Your task to perform on an android device: empty trash in google photos Image 0: 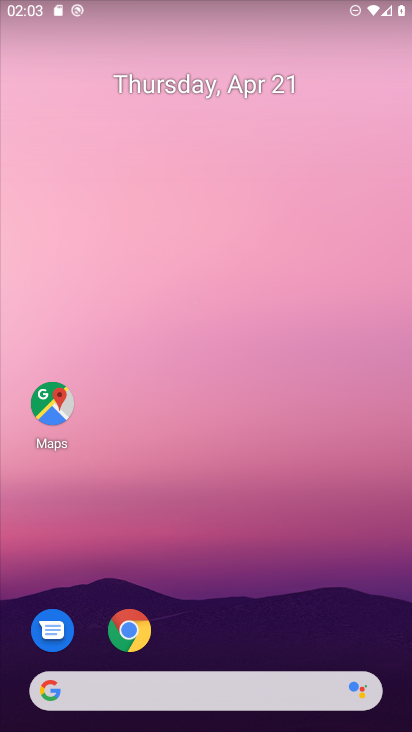
Step 0: drag from (251, 645) to (50, 366)
Your task to perform on an android device: empty trash in google photos Image 1: 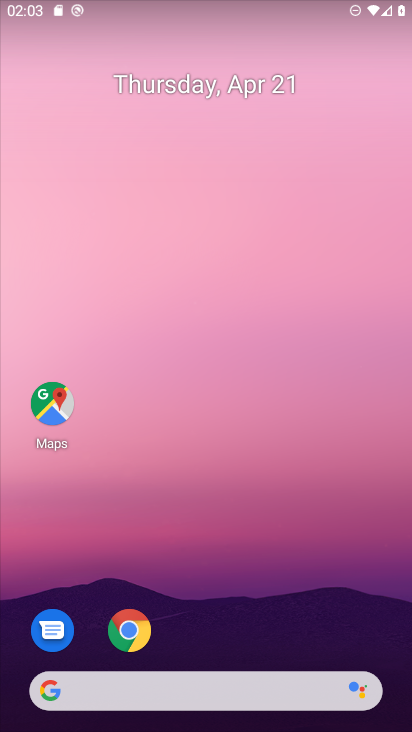
Step 1: drag from (259, 629) to (259, 120)
Your task to perform on an android device: empty trash in google photos Image 2: 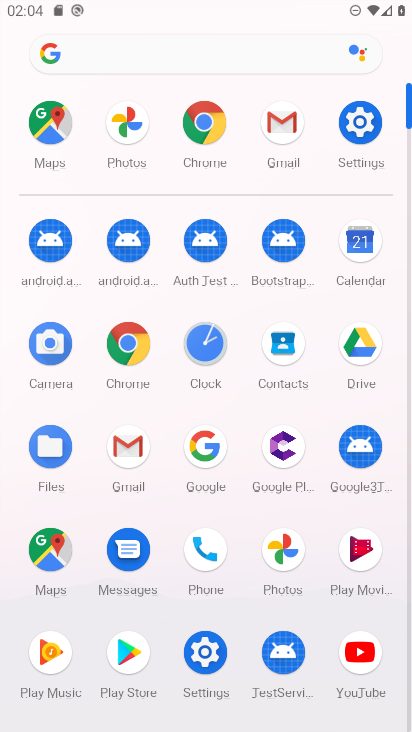
Step 2: click (287, 571)
Your task to perform on an android device: empty trash in google photos Image 3: 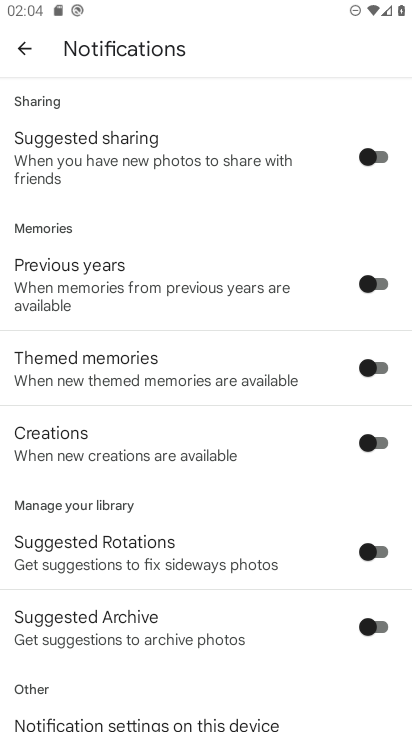
Step 3: press back button
Your task to perform on an android device: empty trash in google photos Image 4: 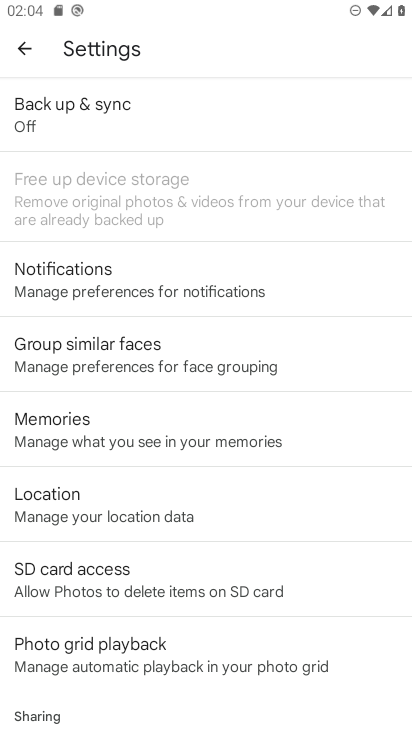
Step 4: press back button
Your task to perform on an android device: empty trash in google photos Image 5: 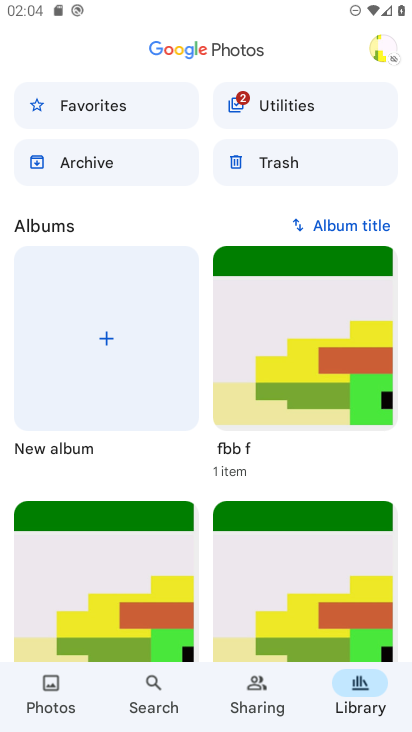
Step 5: click (343, 159)
Your task to perform on an android device: empty trash in google photos Image 6: 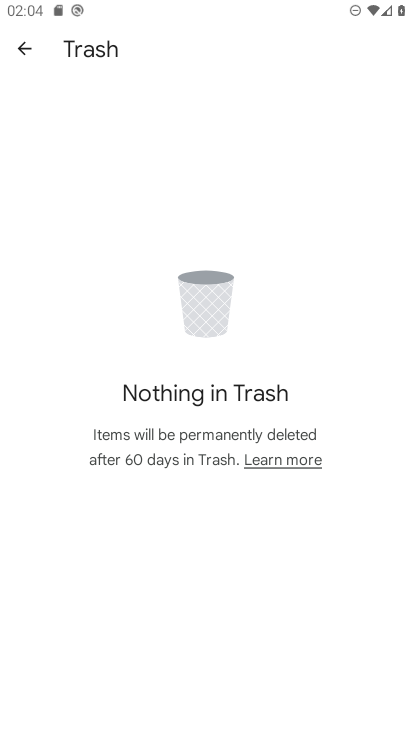
Step 6: task complete